Your task to perform on an android device: delete the emails in spam in the gmail app Image 0: 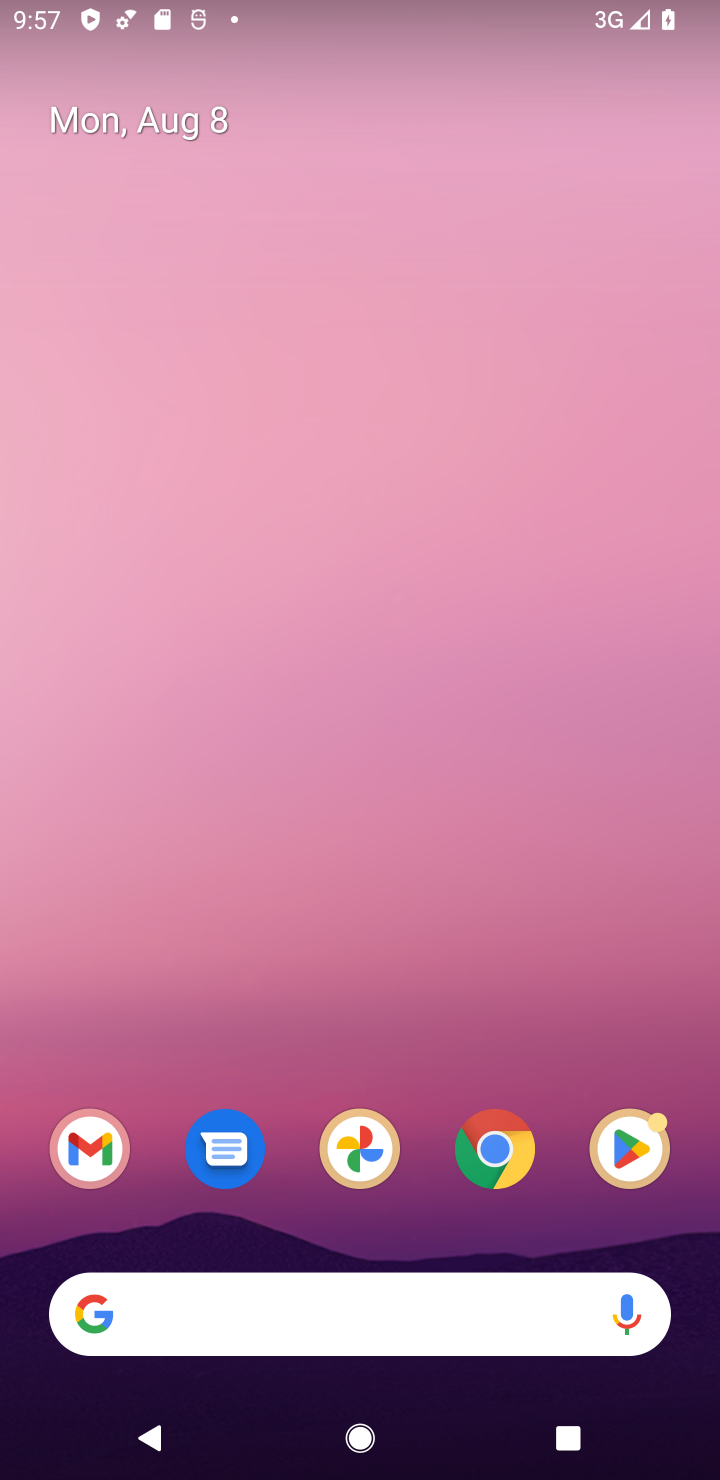
Step 0: drag from (367, 1123) to (367, 477)
Your task to perform on an android device: delete the emails in spam in the gmail app Image 1: 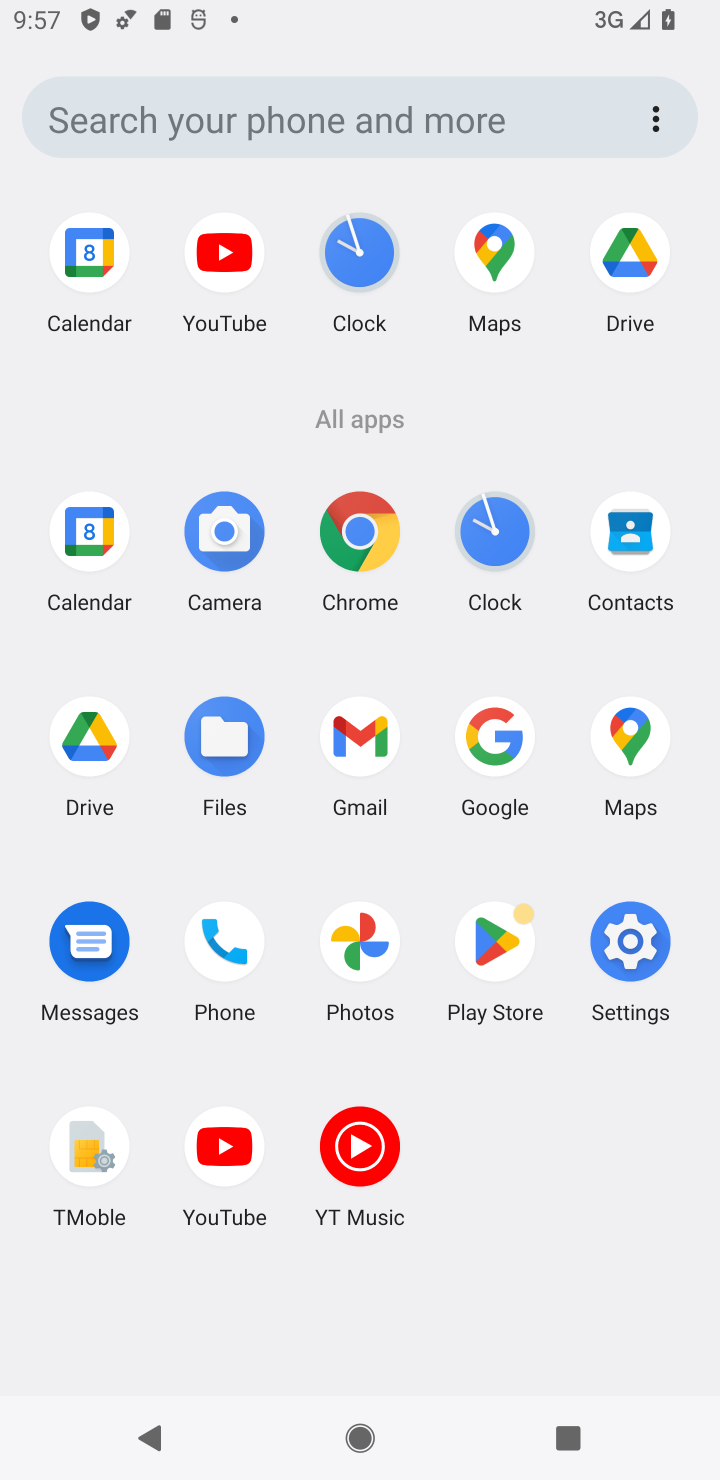
Step 1: click (368, 746)
Your task to perform on an android device: delete the emails in spam in the gmail app Image 2: 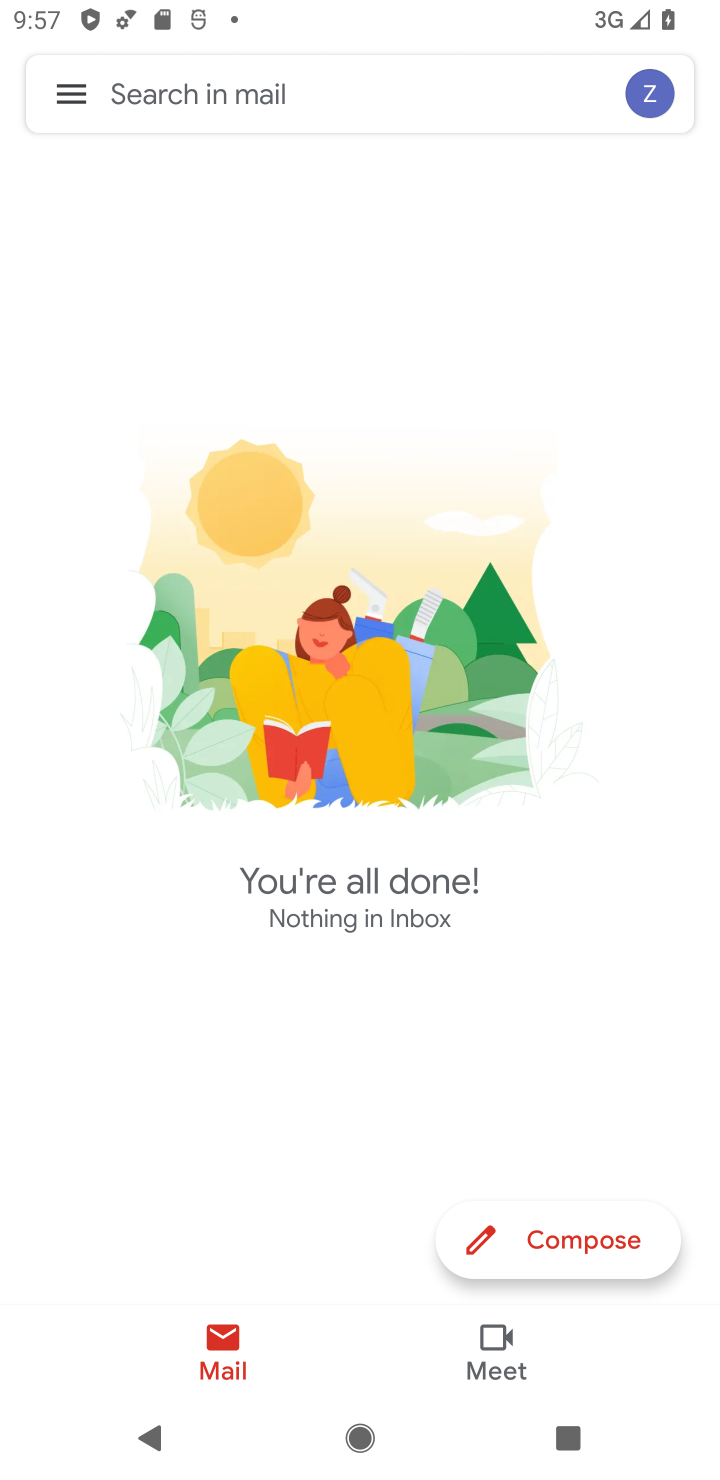
Step 2: task complete